Your task to perform on an android device: star an email in the gmail app Image 0: 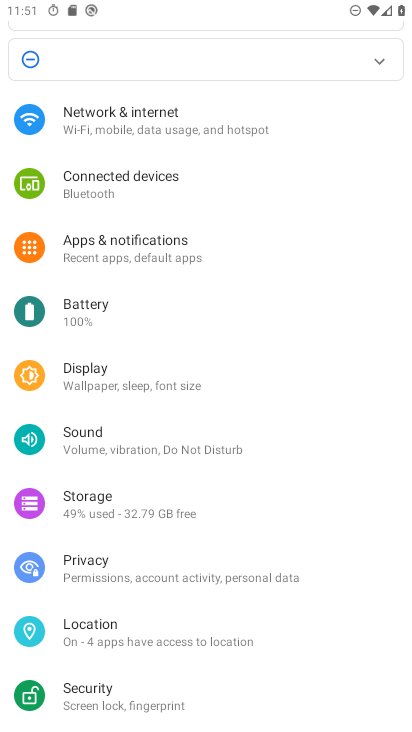
Step 0: press home button
Your task to perform on an android device: star an email in the gmail app Image 1: 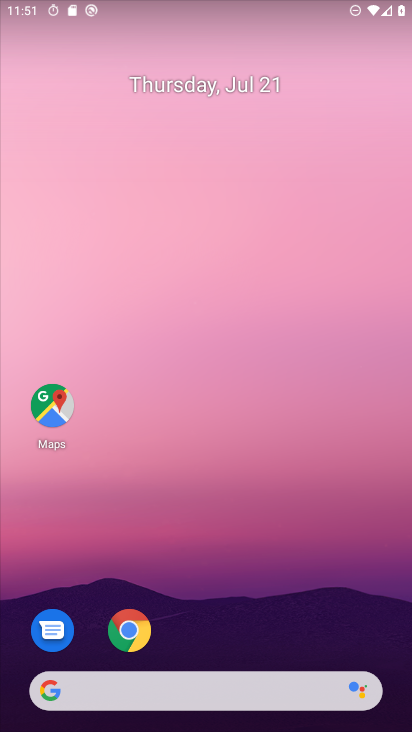
Step 1: drag from (266, 617) to (252, 123)
Your task to perform on an android device: star an email in the gmail app Image 2: 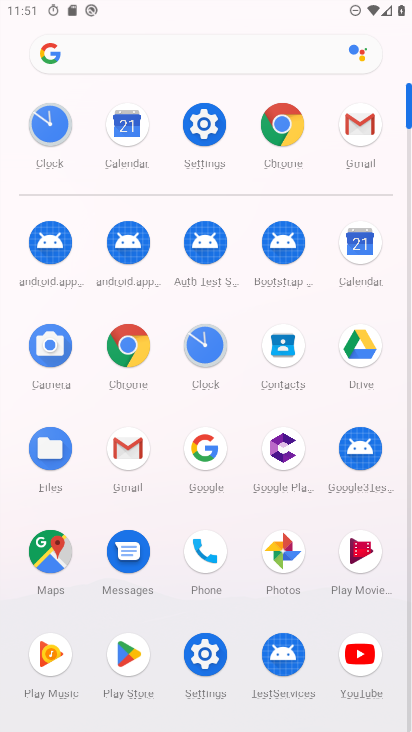
Step 2: click (362, 125)
Your task to perform on an android device: star an email in the gmail app Image 3: 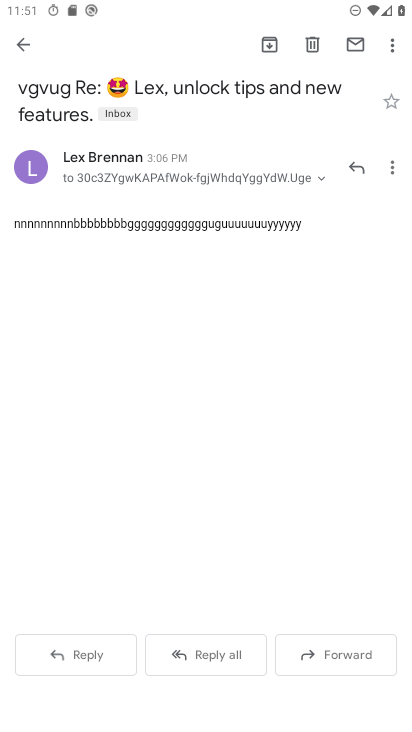
Step 3: click (21, 44)
Your task to perform on an android device: star an email in the gmail app Image 4: 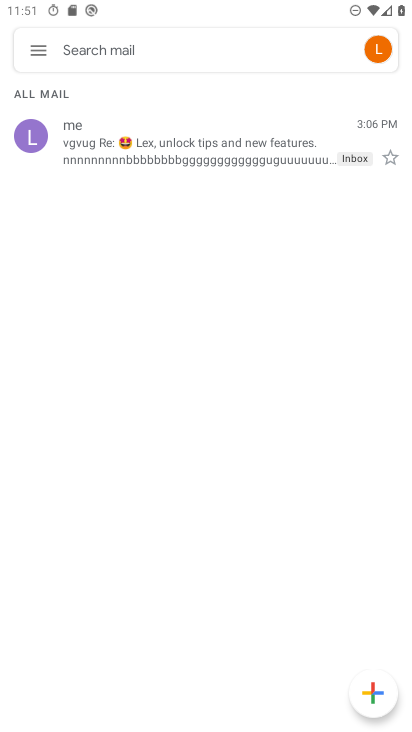
Step 4: click (34, 47)
Your task to perform on an android device: star an email in the gmail app Image 5: 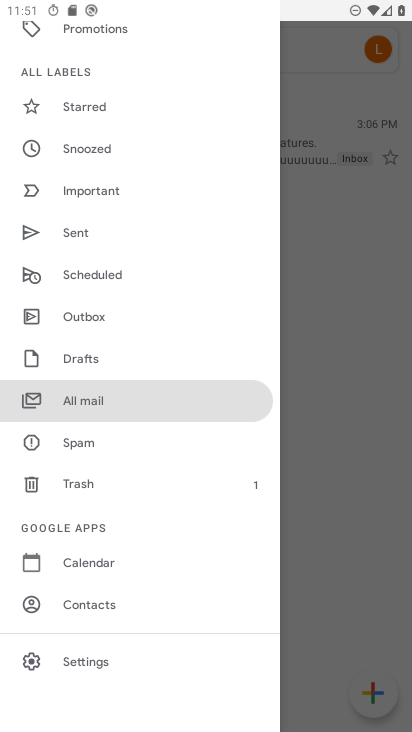
Step 5: click (95, 109)
Your task to perform on an android device: star an email in the gmail app Image 6: 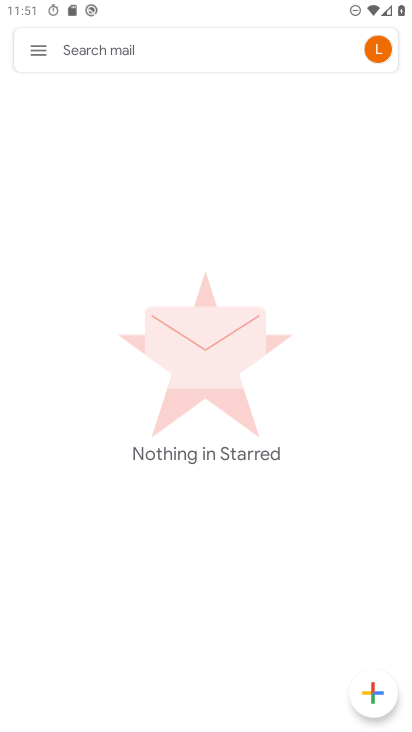
Step 6: click (43, 54)
Your task to perform on an android device: star an email in the gmail app Image 7: 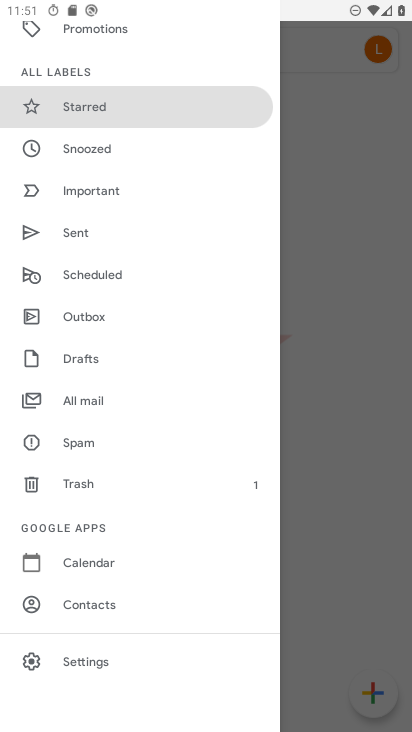
Step 7: click (88, 394)
Your task to perform on an android device: star an email in the gmail app Image 8: 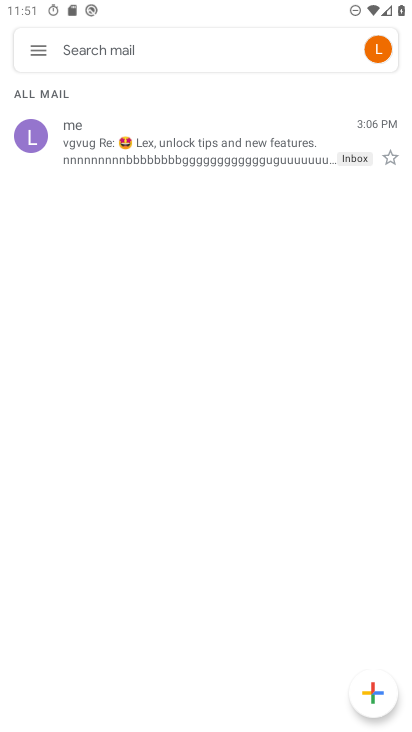
Step 8: click (392, 160)
Your task to perform on an android device: star an email in the gmail app Image 9: 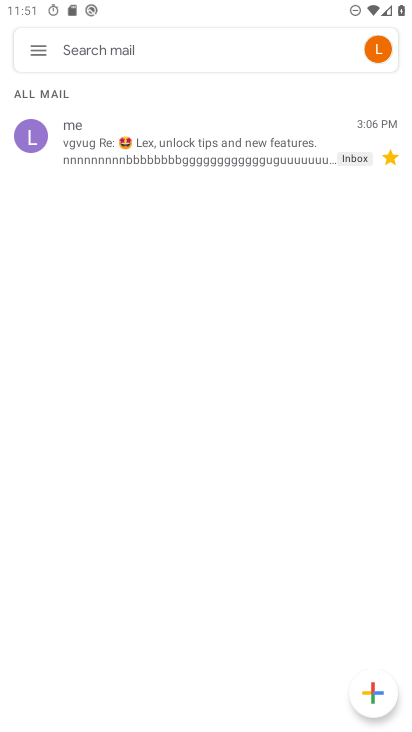
Step 9: task complete